Your task to perform on an android device: Open Chrome and go to the settings page Image 0: 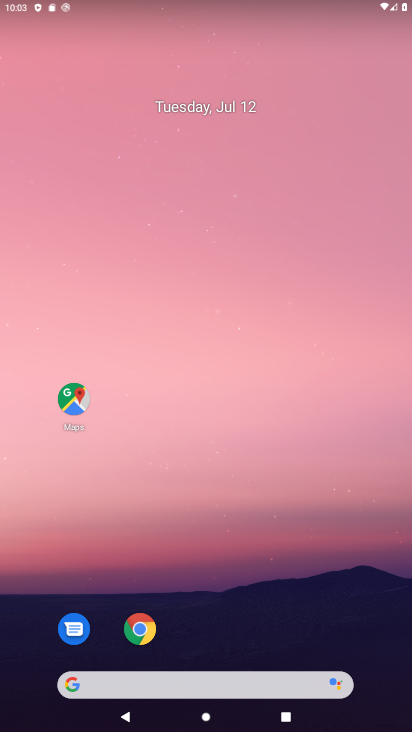
Step 0: click (139, 633)
Your task to perform on an android device: Open Chrome and go to the settings page Image 1: 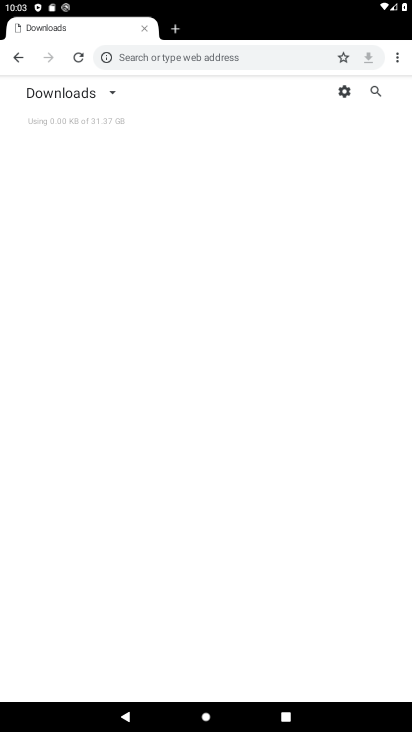
Step 1: click (399, 64)
Your task to perform on an android device: Open Chrome and go to the settings page Image 2: 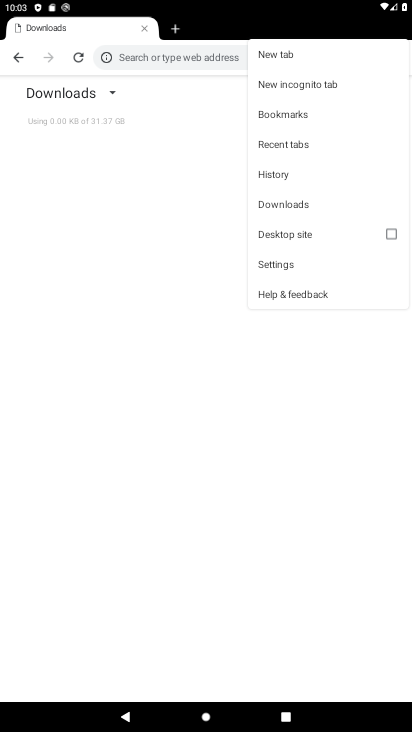
Step 2: click (289, 261)
Your task to perform on an android device: Open Chrome and go to the settings page Image 3: 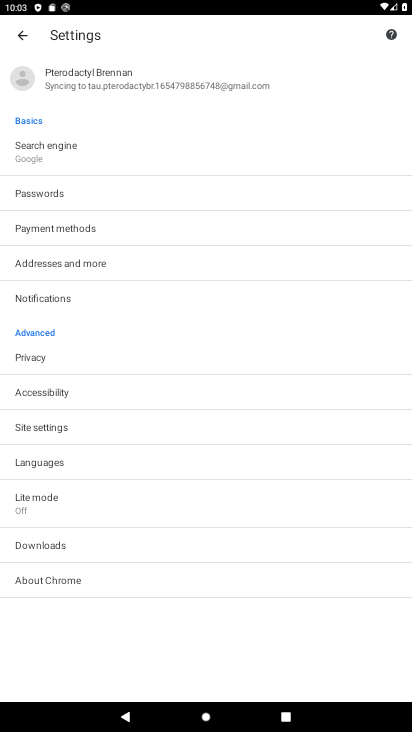
Step 3: task complete